Your task to perform on an android device: Is it going to rain tomorrow? Image 0: 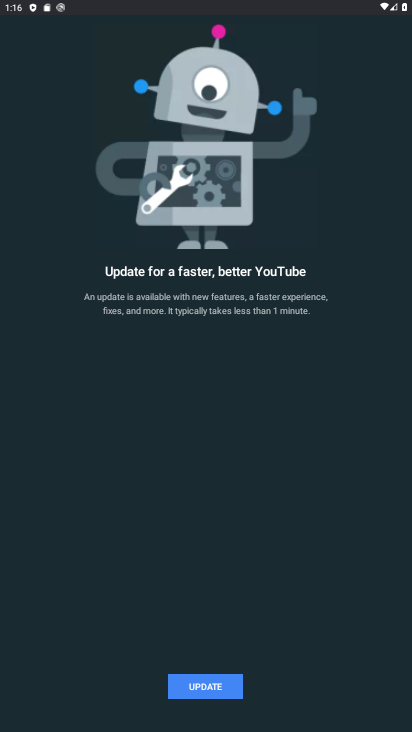
Step 0: press back button
Your task to perform on an android device: Is it going to rain tomorrow? Image 1: 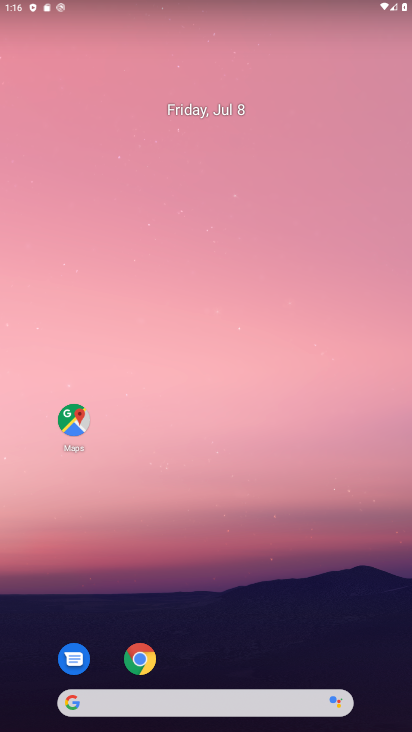
Step 1: click (182, 700)
Your task to perform on an android device: Is it going to rain tomorrow? Image 2: 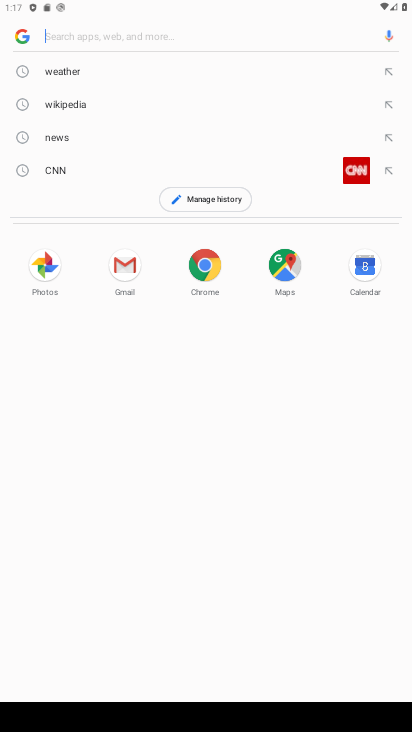
Step 2: click (61, 75)
Your task to perform on an android device: Is it going to rain tomorrow? Image 3: 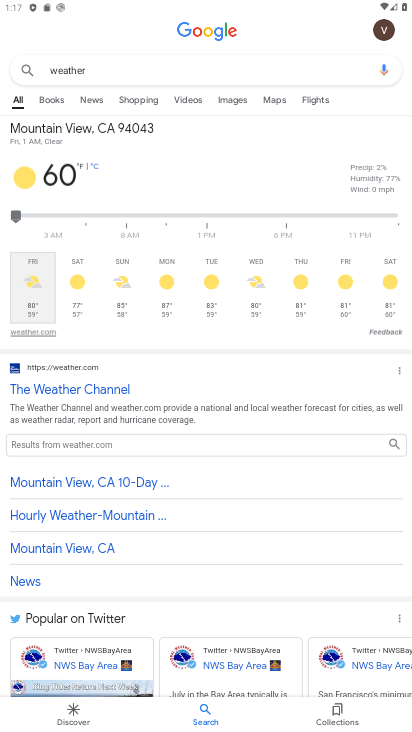
Step 3: click (76, 283)
Your task to perform on an android device: Is it going to rain tomorrow? Image 4: 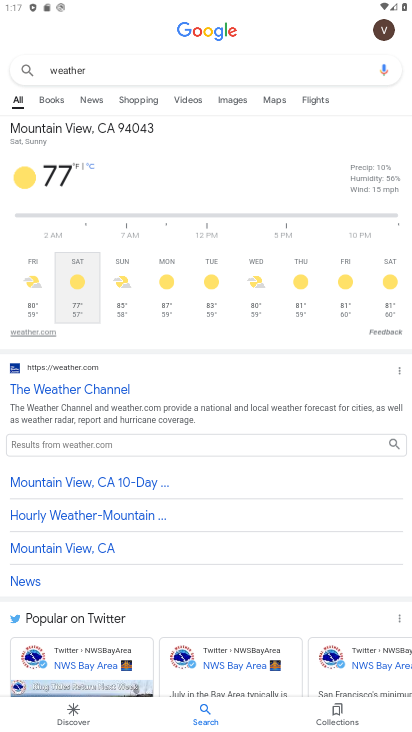
Step 4: task complete